Your task to perform on an android device: open app "VLC for Android" (install if not already installed) and enter user name: "Yves@outlook.com" and password: "internally" Image 0: 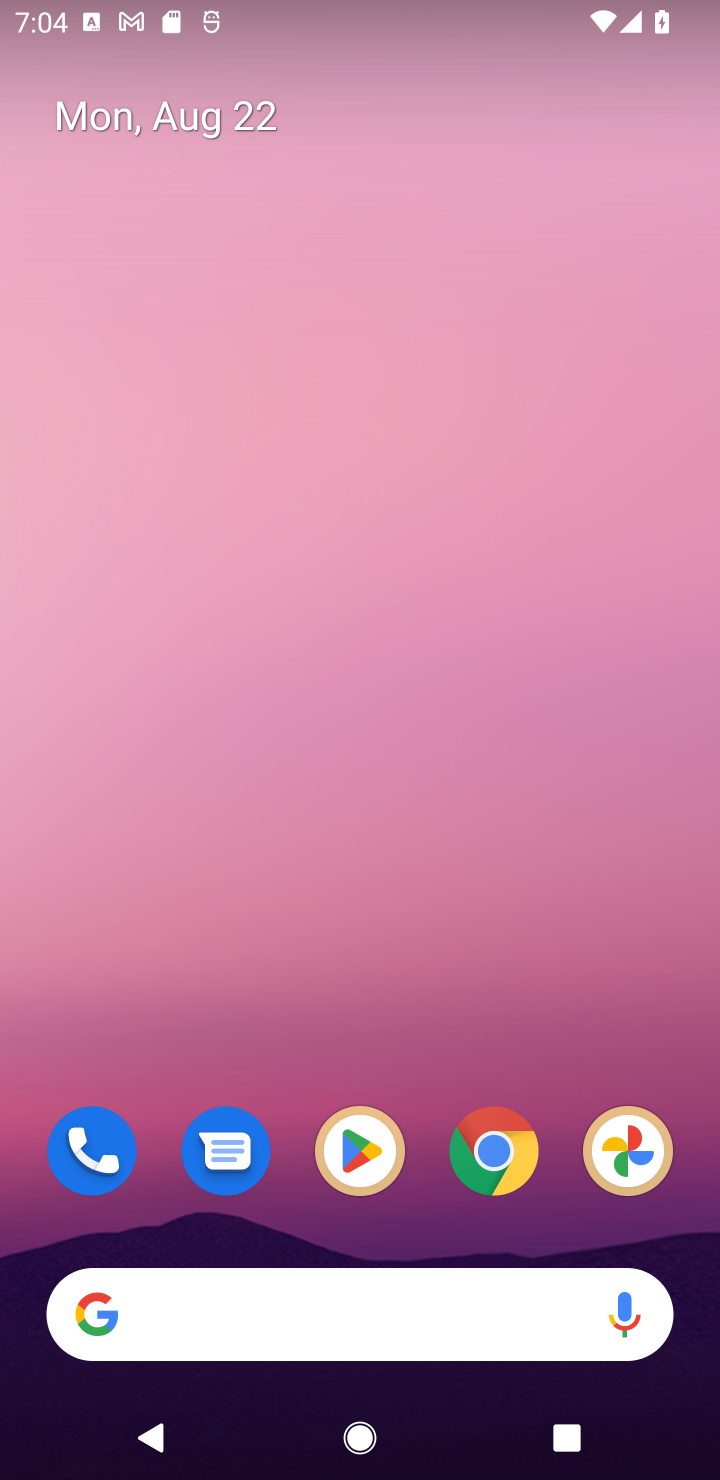
Step 0: click (361, 1158)
Your task to perform on an android device: open app "VLC for Android" (install if not already installed) and enter user name: "Yves@outlook.com" and password: "internally" Image 1: 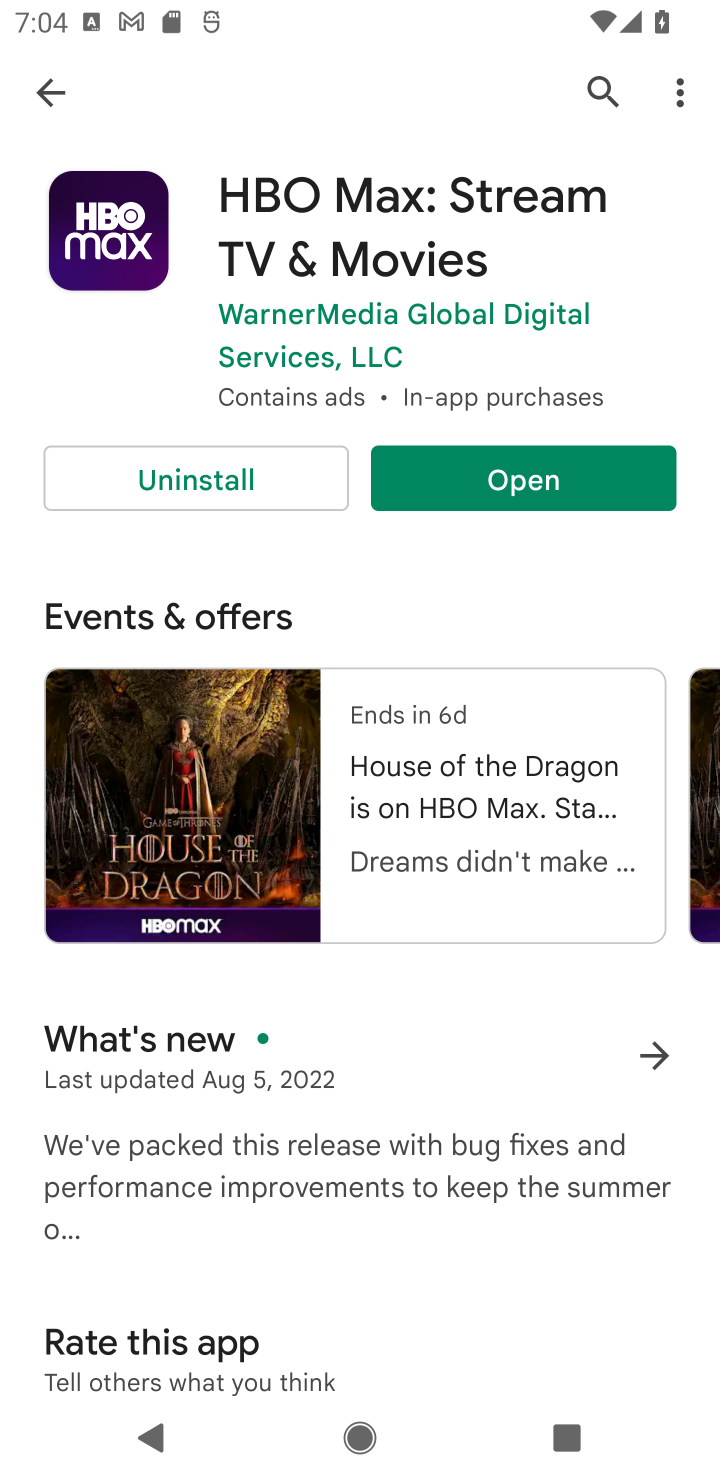
Step 1: click (588, 90)
Your task to perform on an android device: open app "VLC for Android" (install if not already installed) and enter user name: "Yves@outlook.com" and password: "internally" Image 2: 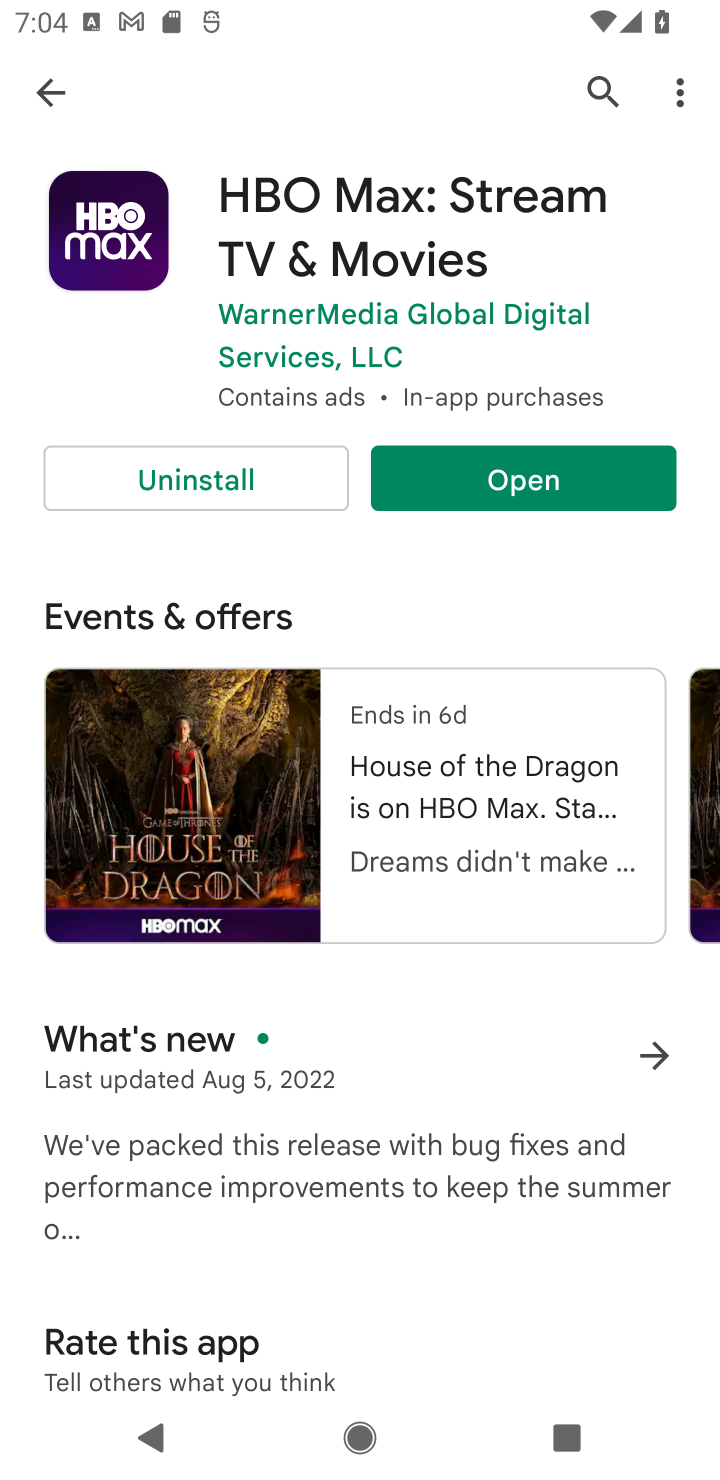
Step 2: click (600, 79)
Your task to perform on an android device: open app "VLC for Android" (install if not already installed) and enter user name: "Yves@outlook.com" and password: "internally" Image 3: 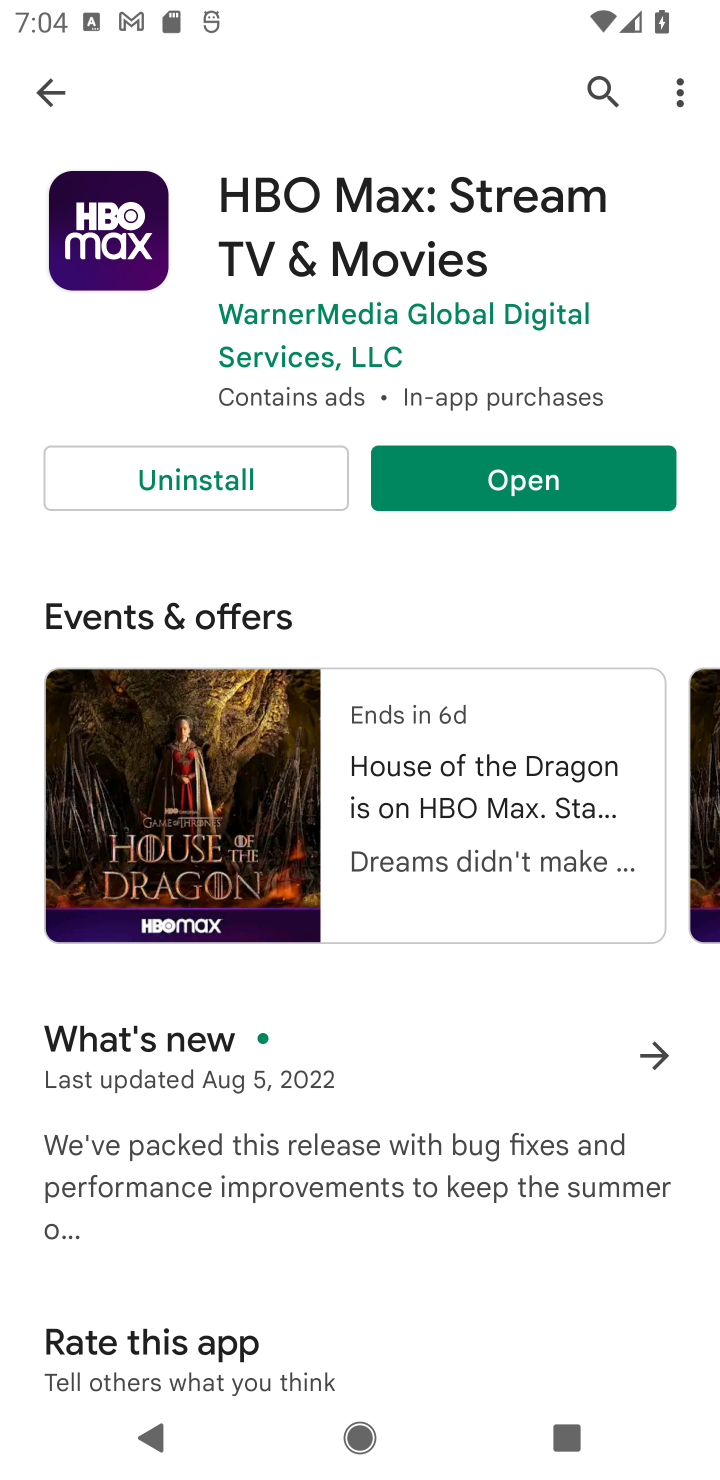
Step 3: click (596, 89)
Your task to perform on an android device: open app "VLC for Android" (install if not already installed) and enter user name: "Yves@outlook.com" and password: "internally" Image 4: 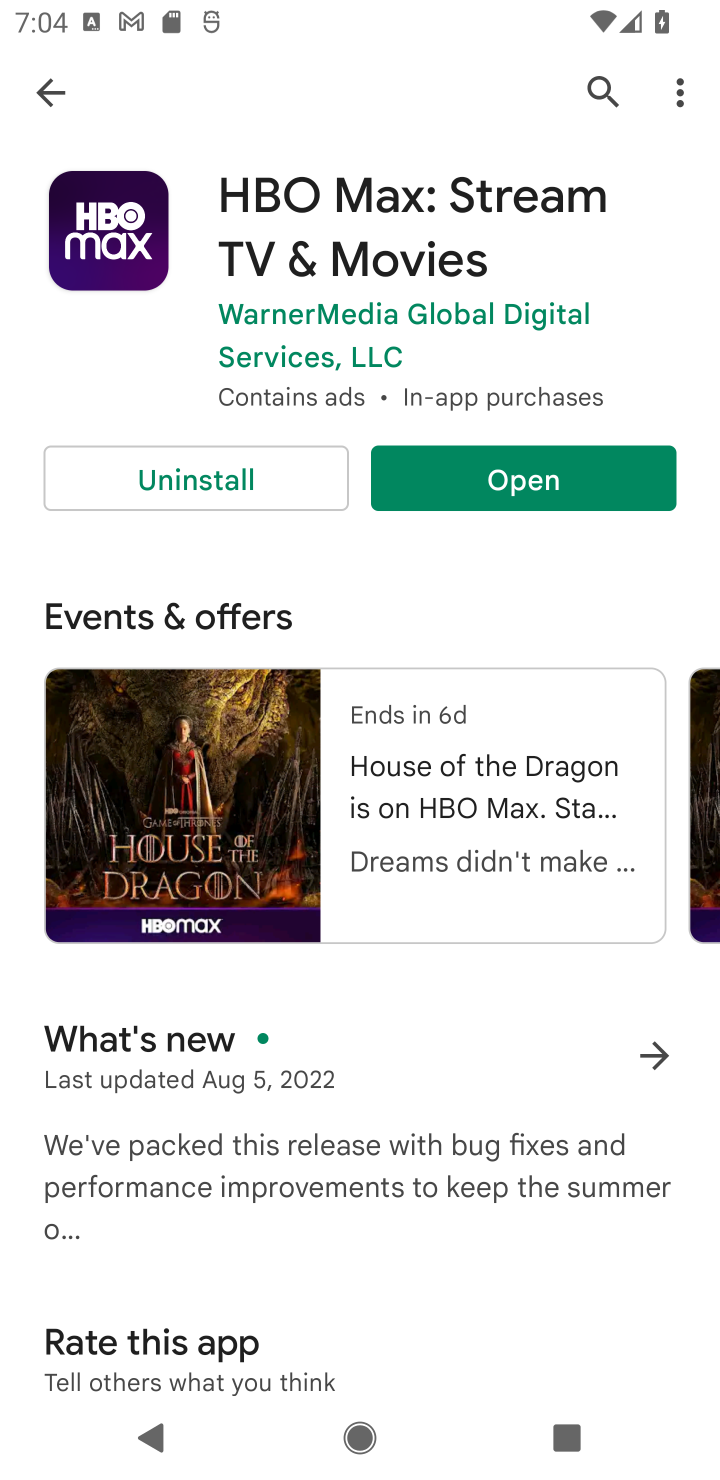
Step 4: click (596, 95)
Your task to perform on an android device: open app "VLC for Android" (install if not already installed) and enter user name: "Yves@outlook.com" and password: "internally" Image 5: 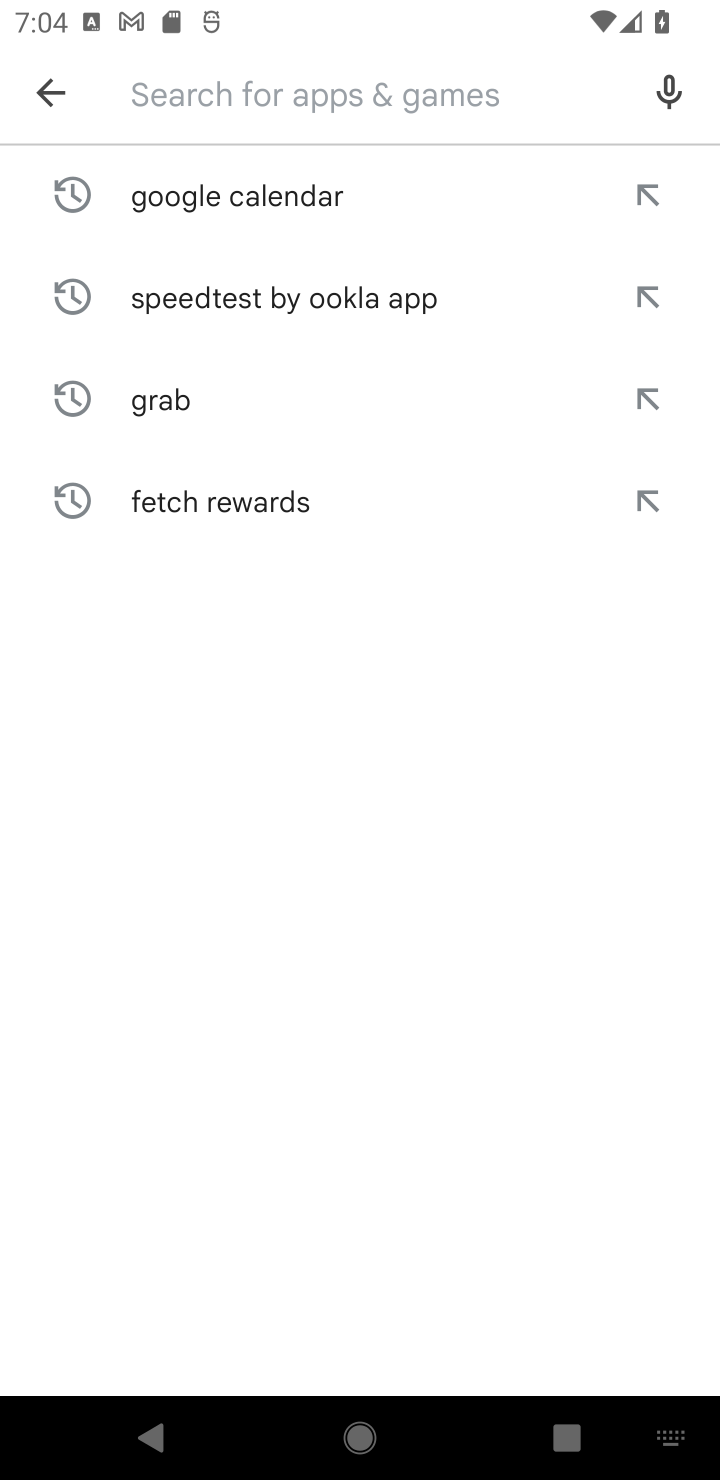
Step 5: type "VLC for Android"
Your task to perform on an android device: open app "VLC for Android" (install if not already installed) and enter user name: "Yves@outlook.com" and password: "internally" Image 6: 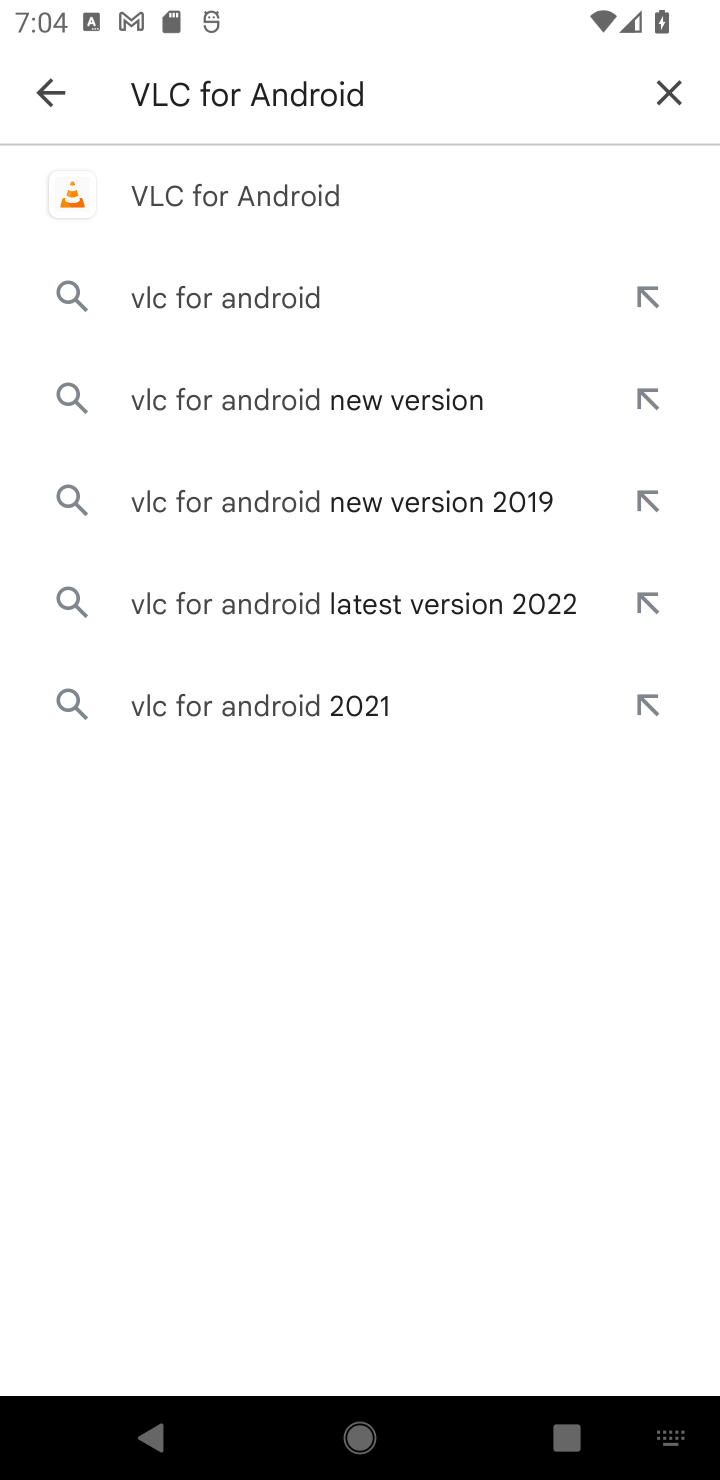
Step 6: click (332, 206)
Your task to perform on an android device: open app "VLC for Android" (install if not already installed) and enter user name: "Yves@outlook.com" and password: "internally" Image 7: 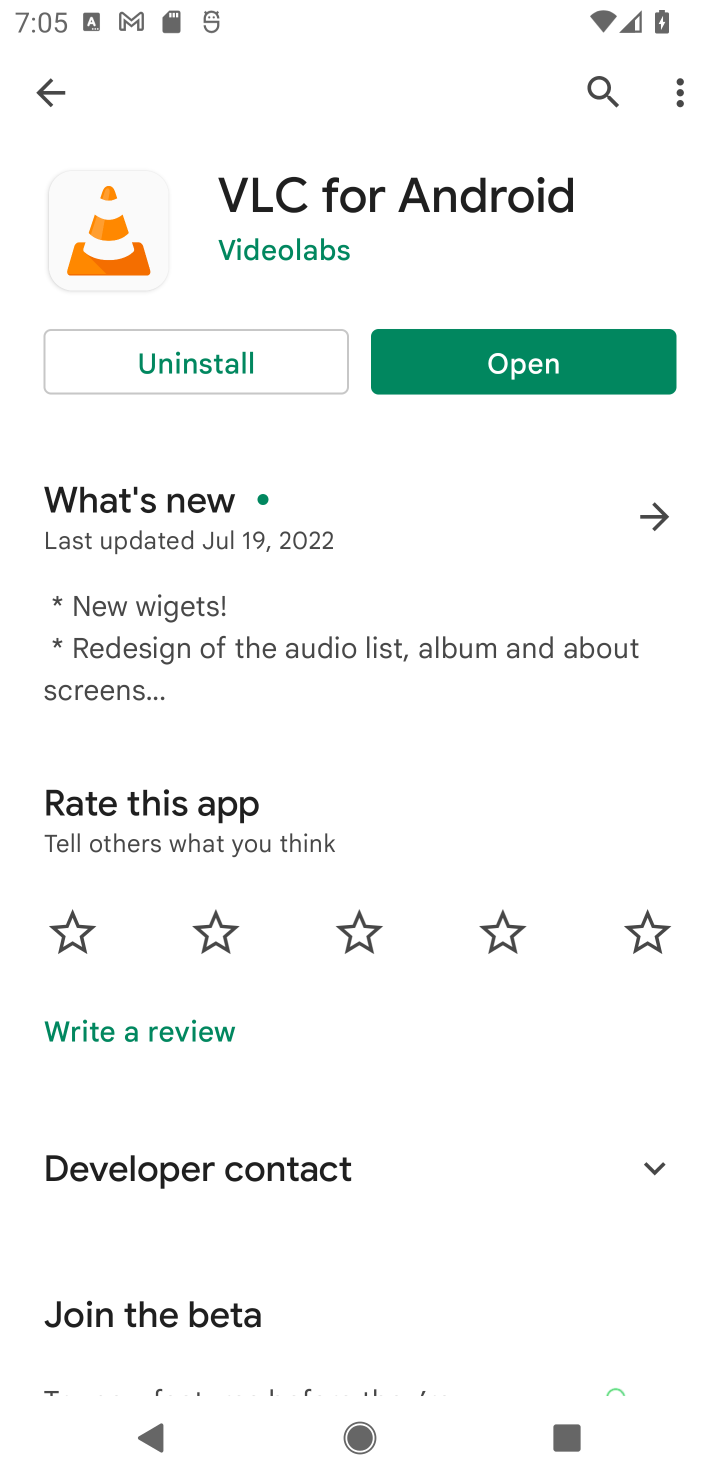
Step 7: click (509, 364)
Your task to perform on an android device: open app "VLC for Android" (install if not already installed) and enter user name: "Yves@outlook.com" and password: "internally" Image 8: 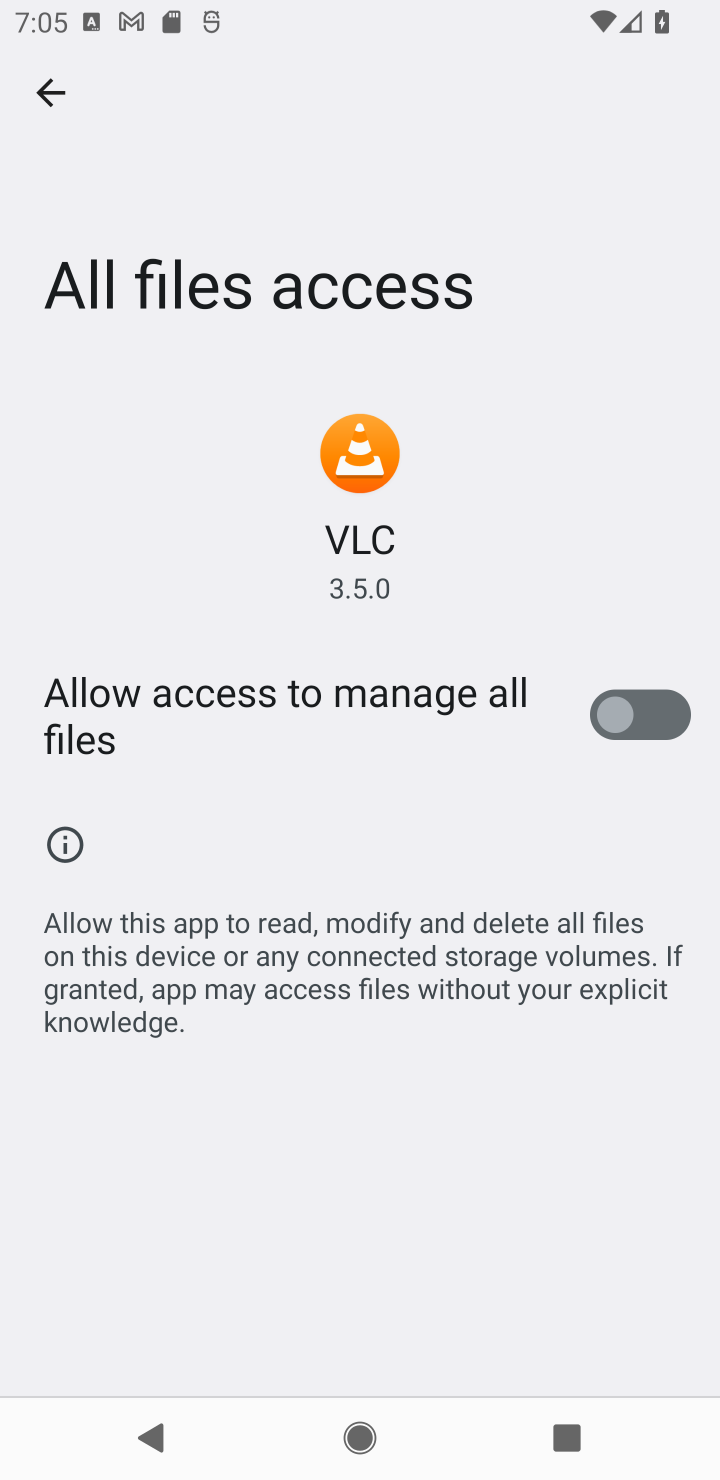
Step 8: task complete